Your task to perform on an android device: empty trash in the gmail app Image 0: 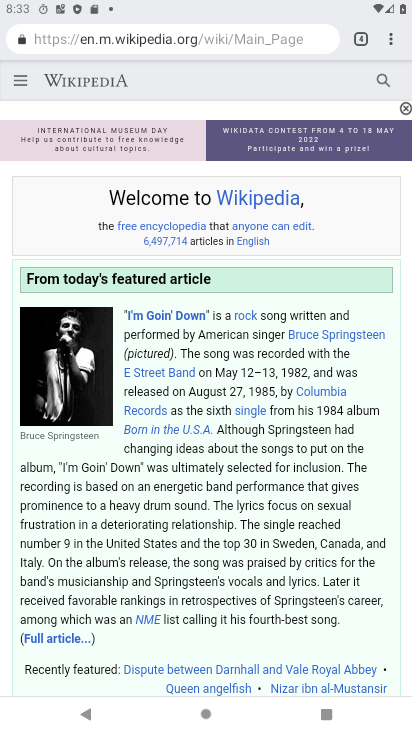
Step 0: press home button
Your task to perform on an android device: empty trash in the gmail app Image 1: 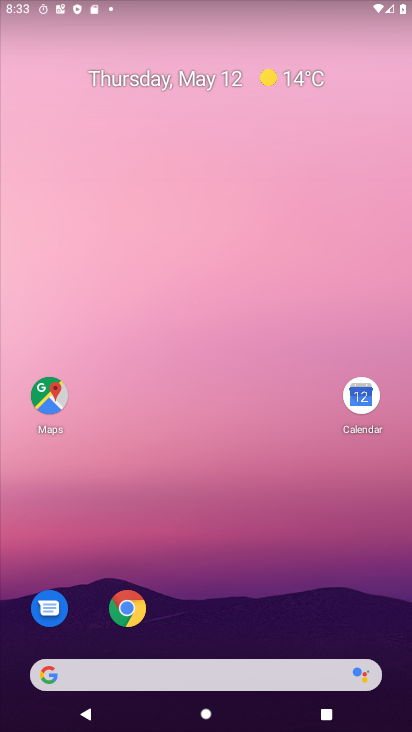
Step 1: drag from (278, 553) to (242, 189)
Your task to perform on an android device: empty trash in the gmail app Image 2: 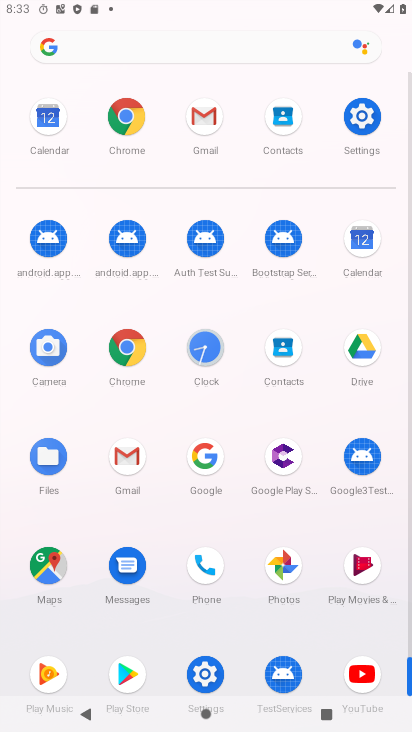
Step 2: click (125, 456)
Your task to perform on an android device: empty trash in the gmail app Image 3: 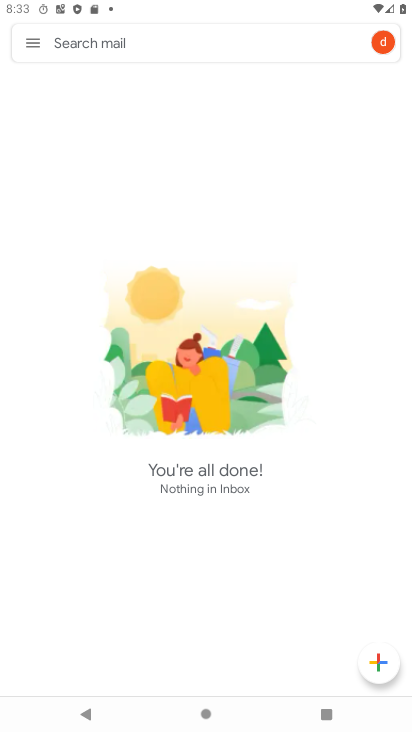
Step 3: click (40, 47)
Your task to perform on an android device: empty trash in the gmail app Image 4: 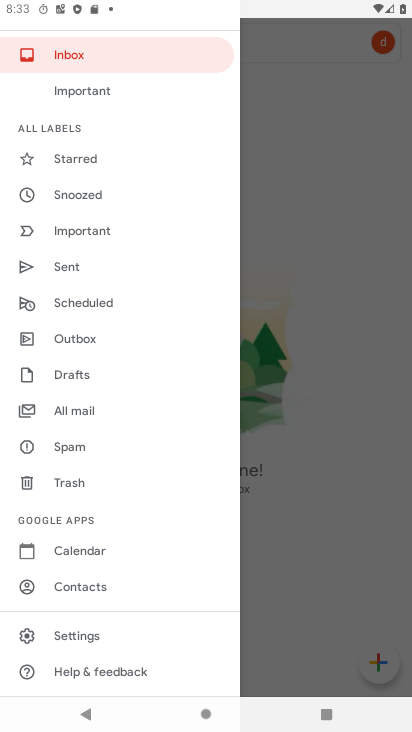
Step 4: drag from (142, 610) to (106, 137)
Your task to perform on an android device: empty trash in the gmail app Image 5: 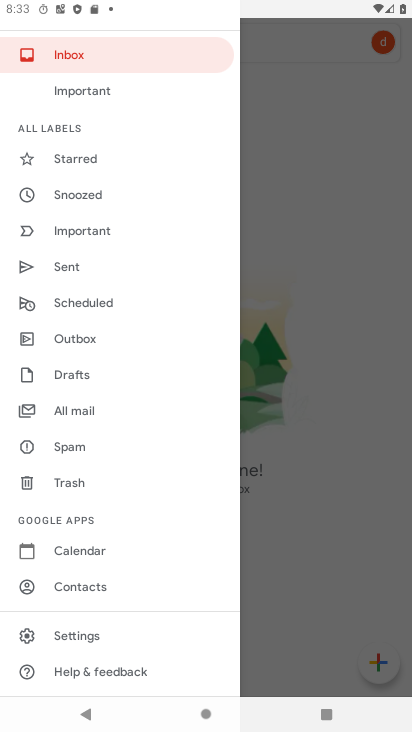
Step 5: click (94, 636)
Your task to perform on an android device: empty trash in the gmail app Image 6: 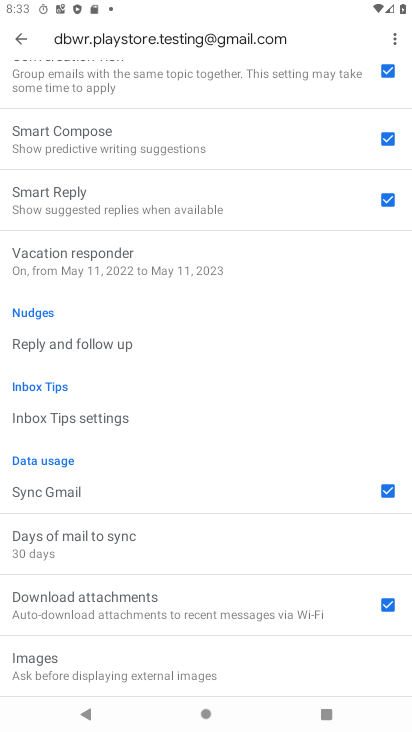
Step 6: drag from (179, 447) to (120, 77)
Your task to perform on an android device: empty trash in the gmail app Image 7: 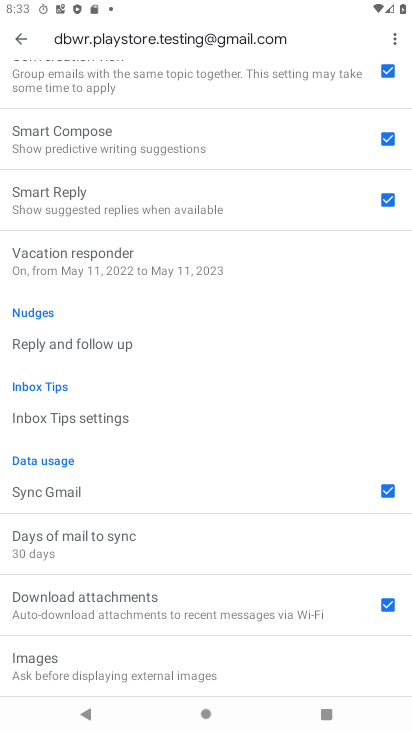
Step 7: drag from (101, 364) to (147, 606)
Your task to perform on an android device: empty trash in the gmail app Image 8: 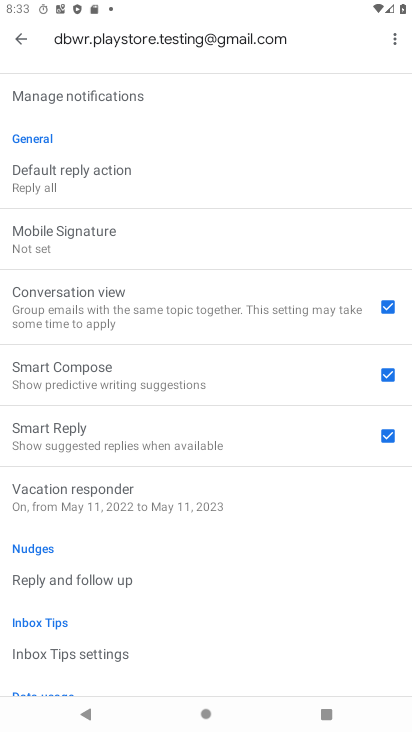
Step 8: drag from (111, 133) to (184, 565)
Your task to perform on an android device: empty trash in the gmail app Image 9: 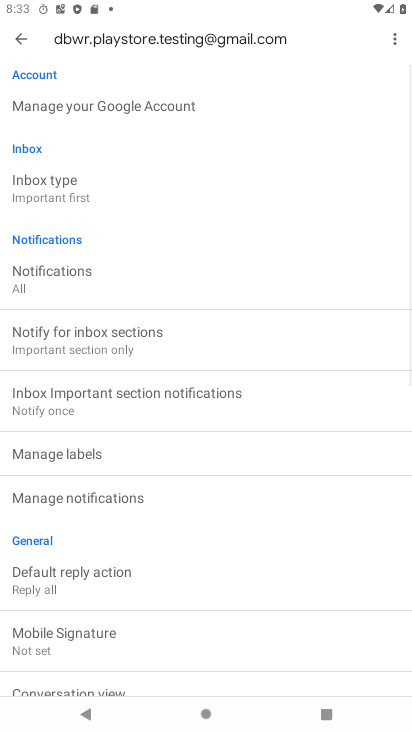
Step 9: drag from (146, 137) to (262, 533)
Your task to perform on an android device: empty trash in the gmail app Image 10: 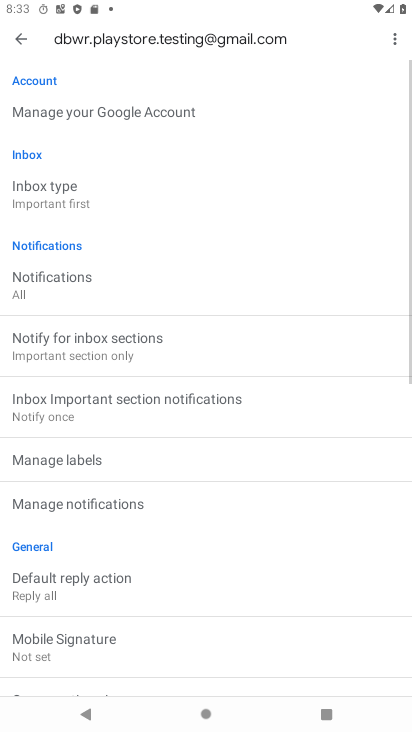
Step 10: click (178, 414)
Your task to perform on an android device: empty trash in the gmail app Image 11: 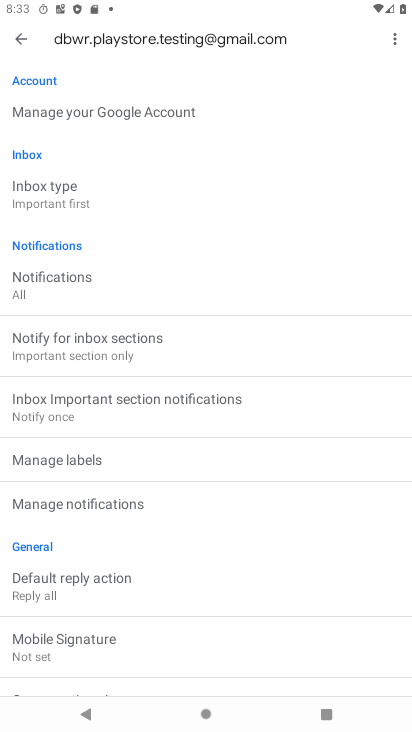
Step 11: task complete